Your task to perform on an android device: Clear all items from cart on target. Image 0: 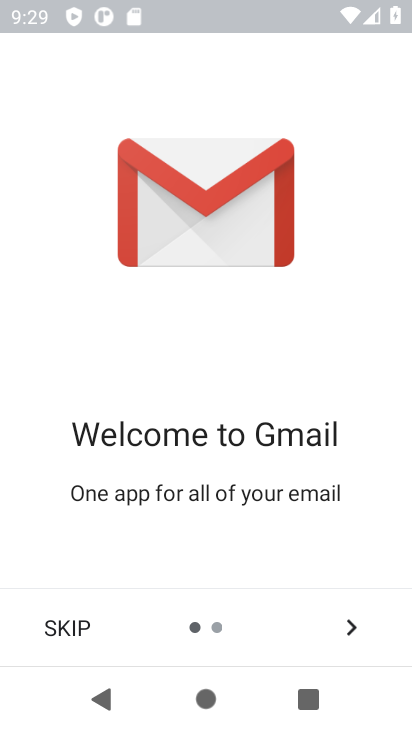
Step 0: press home button
Your task to perform on an android device: Clear all items from cart on target. Image 1: 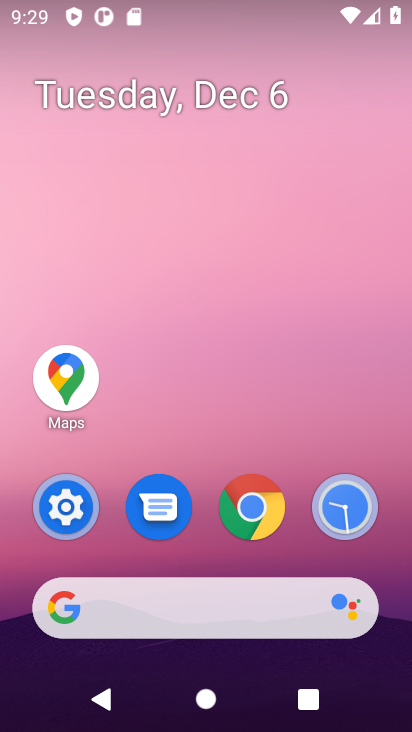
Step 1: click (111, 604)
Your task to perform on an android device: Clear all items from cart on target. Image 2: 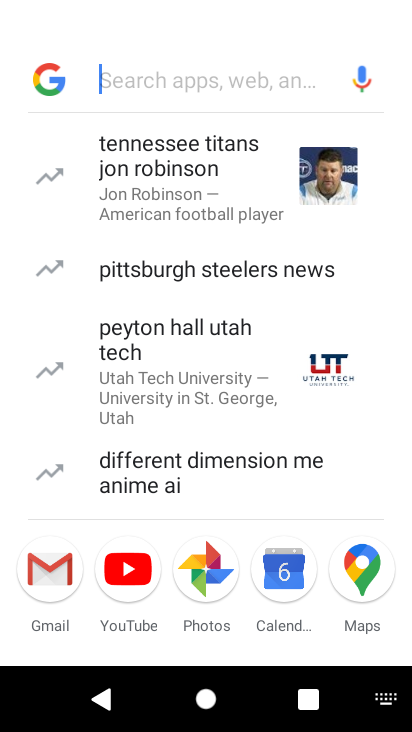
Step 2: type "target"
Your task to perform on an android device: Clear all items from cart on target. Image 3: 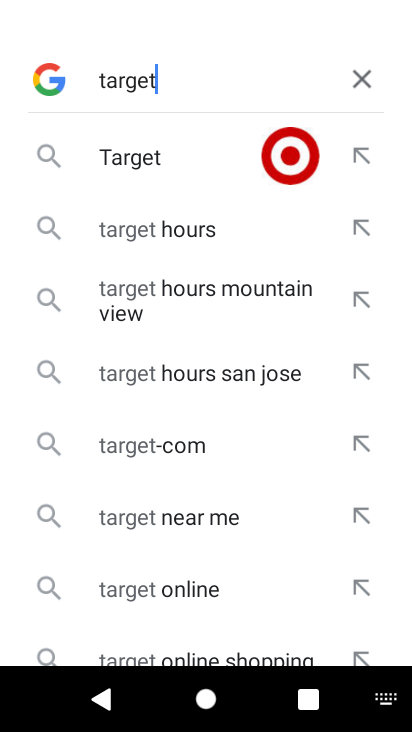
Step 3: press enter
Your task to perform on an android device: Clear all items from cart on target. Image 4: 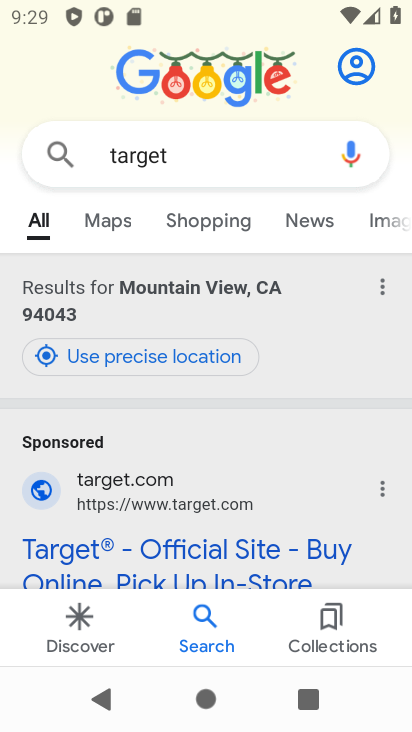
Step 4: drag from (311, 514) to (318, 252)
Your task to perform on an android device: Clear all items from cart on target. Image 5: 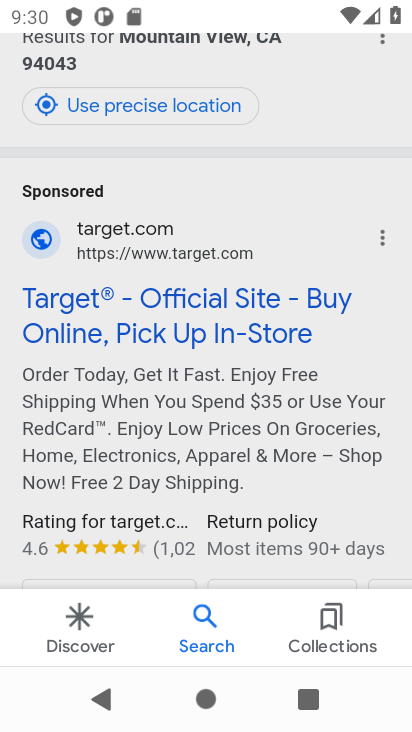
Step 5: drag from (260, 504) to (283, 248)
Your task to perform on an android device: Clear all items from cart on target. Image 6: 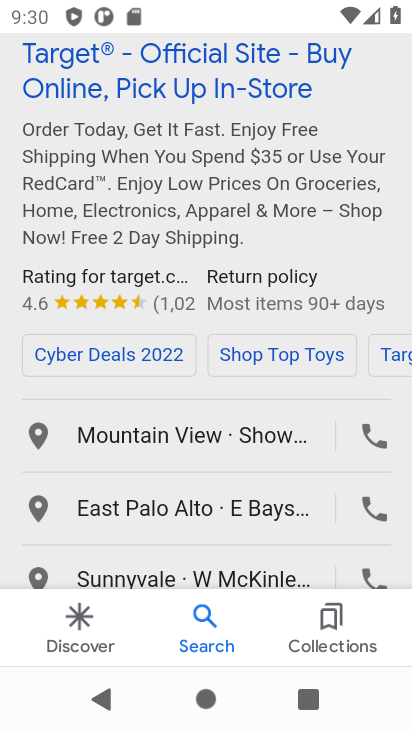
Step 6: click (129, 68)
Your task to perform on an android device: Clear all items from cart on target. Image 7: 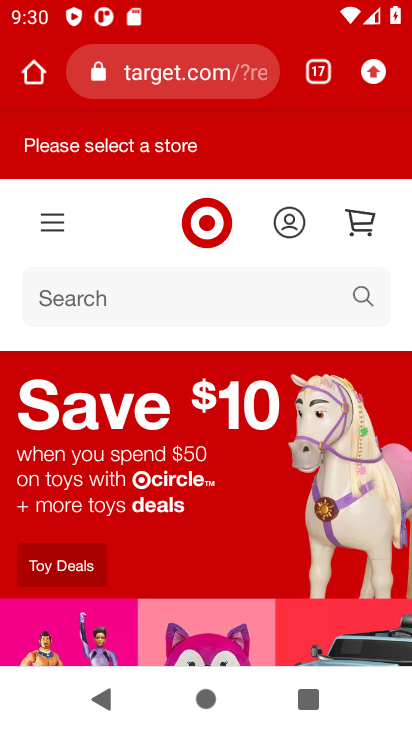
Step 7: click (362, 219)
Your task to perform on an android device: Clear all items from cart on target. Image 8: 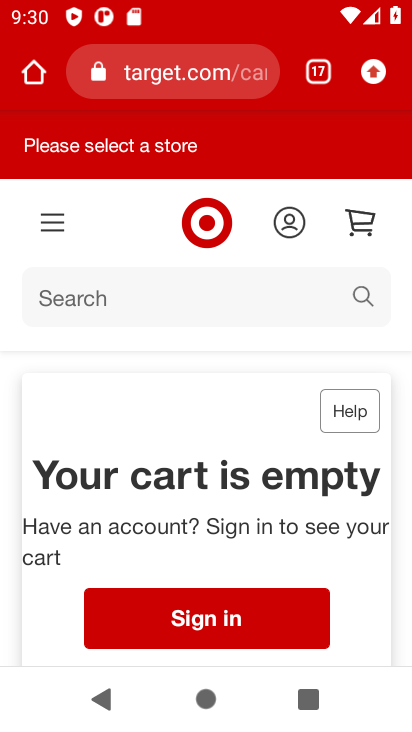
Step 8: task complete